Your task to perform on an android device: check android version Image 0: 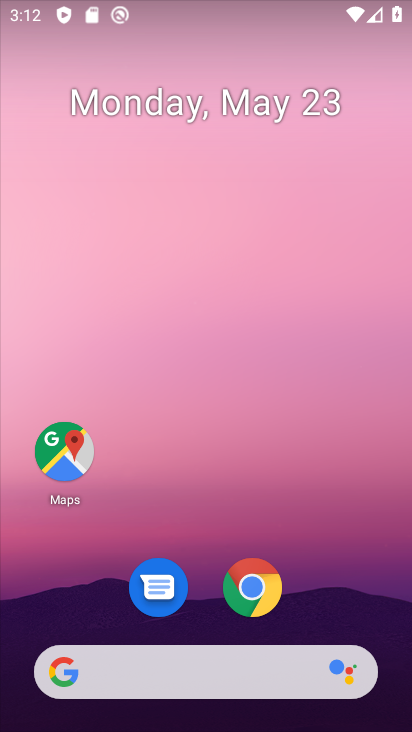
Step 0: drag from (178, 670) to (283, 175)
Your task to perform on an android device: check android version Image 1: 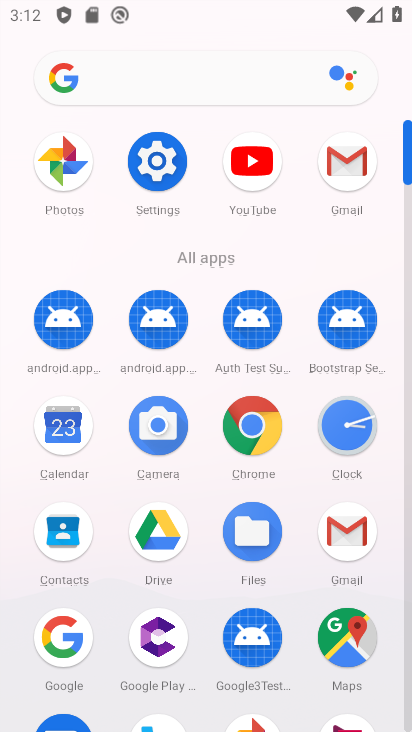
Step 1: click (161, 151)
Your task to perform on an android device: check android version Image 2: 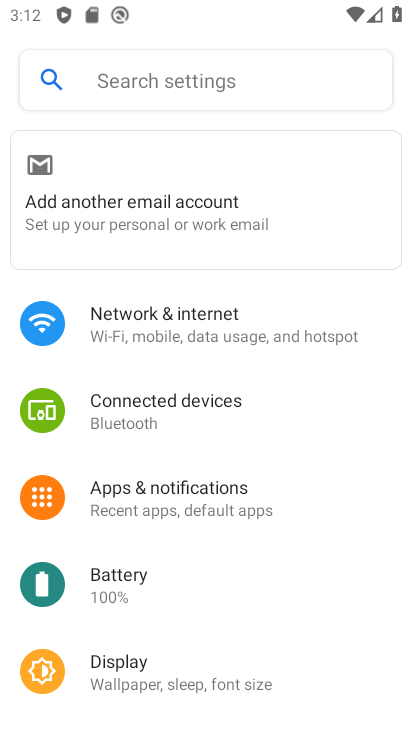
Step 2: drag from (198, 667) to (308, 126)
Your task to perform on an android device: check android version Image 3: 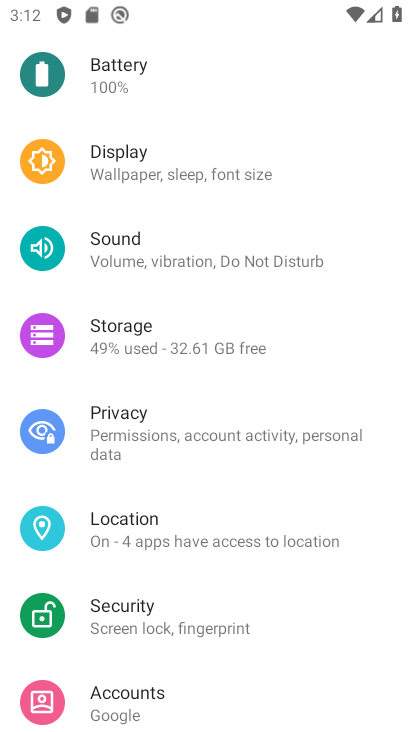
Step 3: drag from (238, 667) to (308, 217)
Your task to perform on an android device: check android version Image 4: 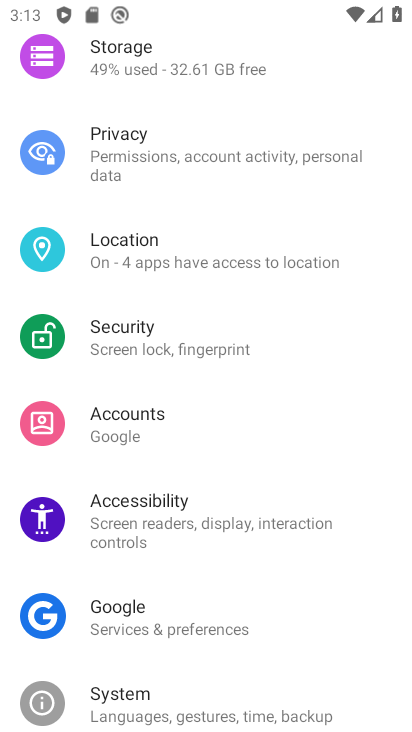
Step 4: drag from (232, 551) to (306, 227)
Your task to perform on an android device: check android version Image 5: 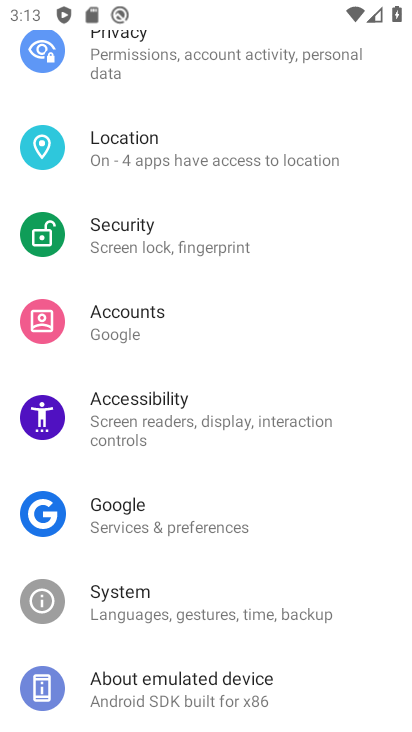
Step 5: click (209, 688)
Your task to perform on an android device: check android version Image 6: 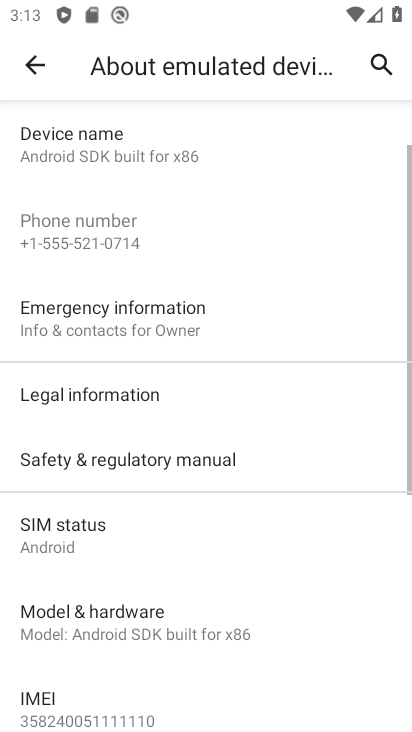
Step 6: drag from (215, 587) to (268, 217)
Your task to perform on an android device: check android version Image 7: 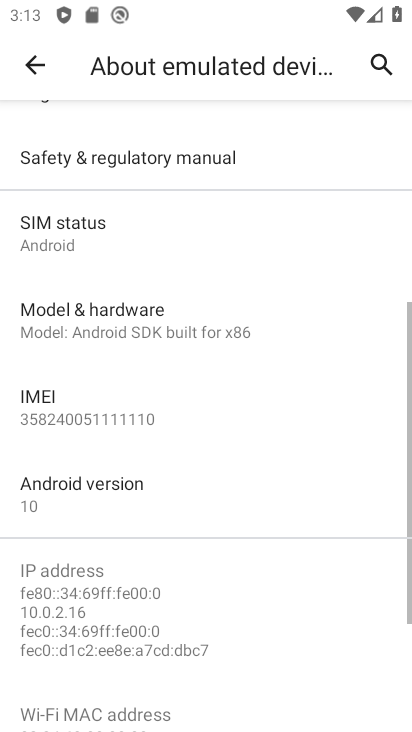
Step 7: click (128, 486)
Your task to perform on an android device: check android version Image 8: 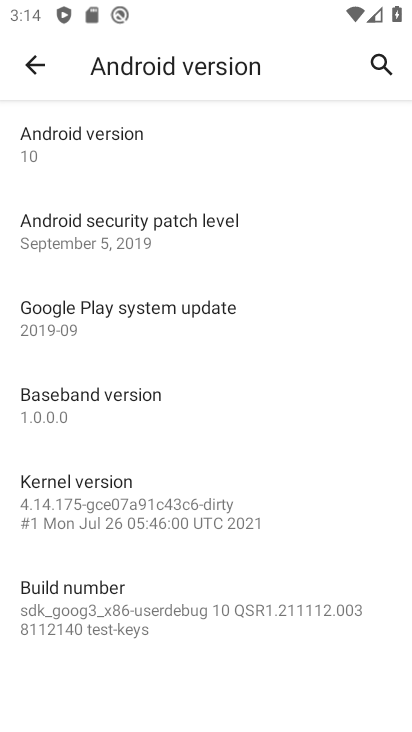
Step 8: task complete